Your task to perform on an android device: What's the news in Argentina? Image 0: 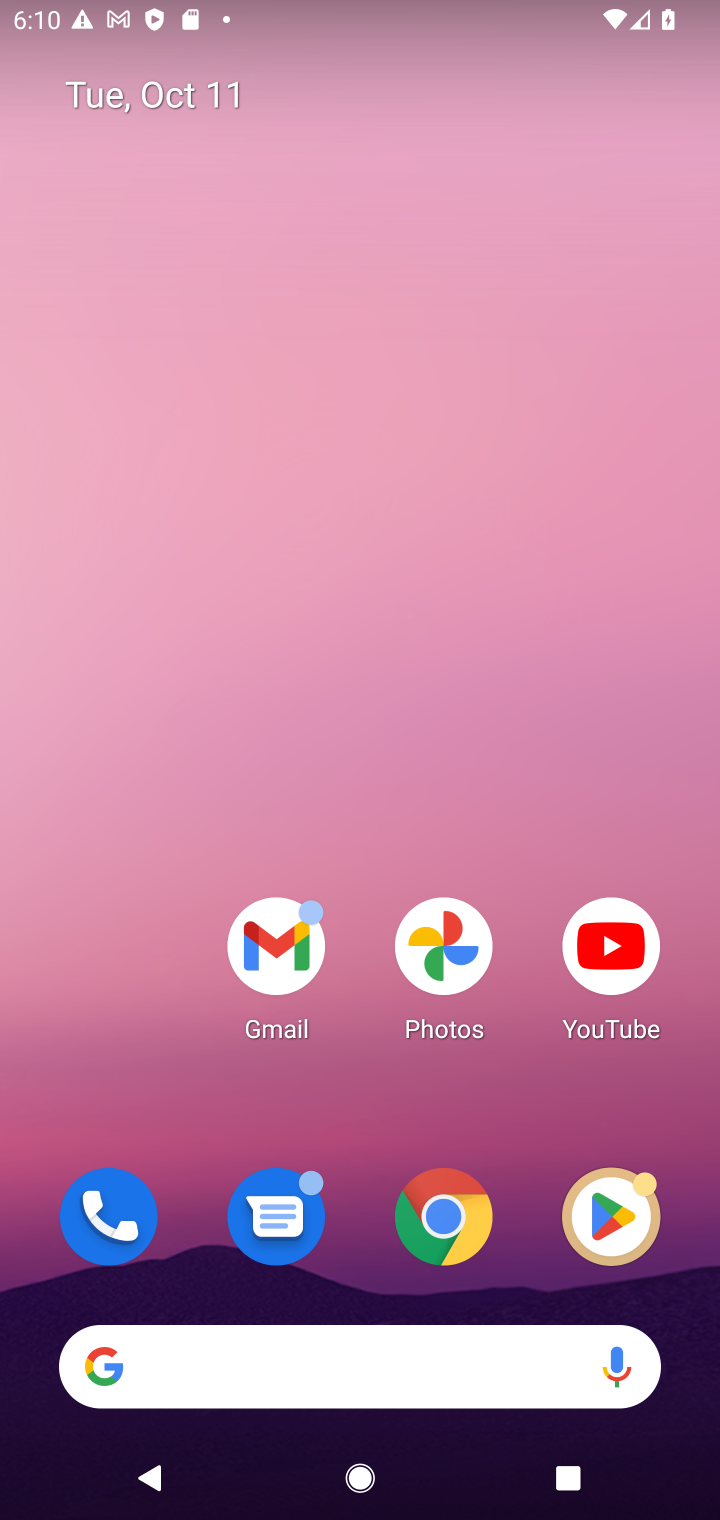
Step 0: click (445, 1218)
Your task to perform on an android device: What's the news in Argentina? Image 1: 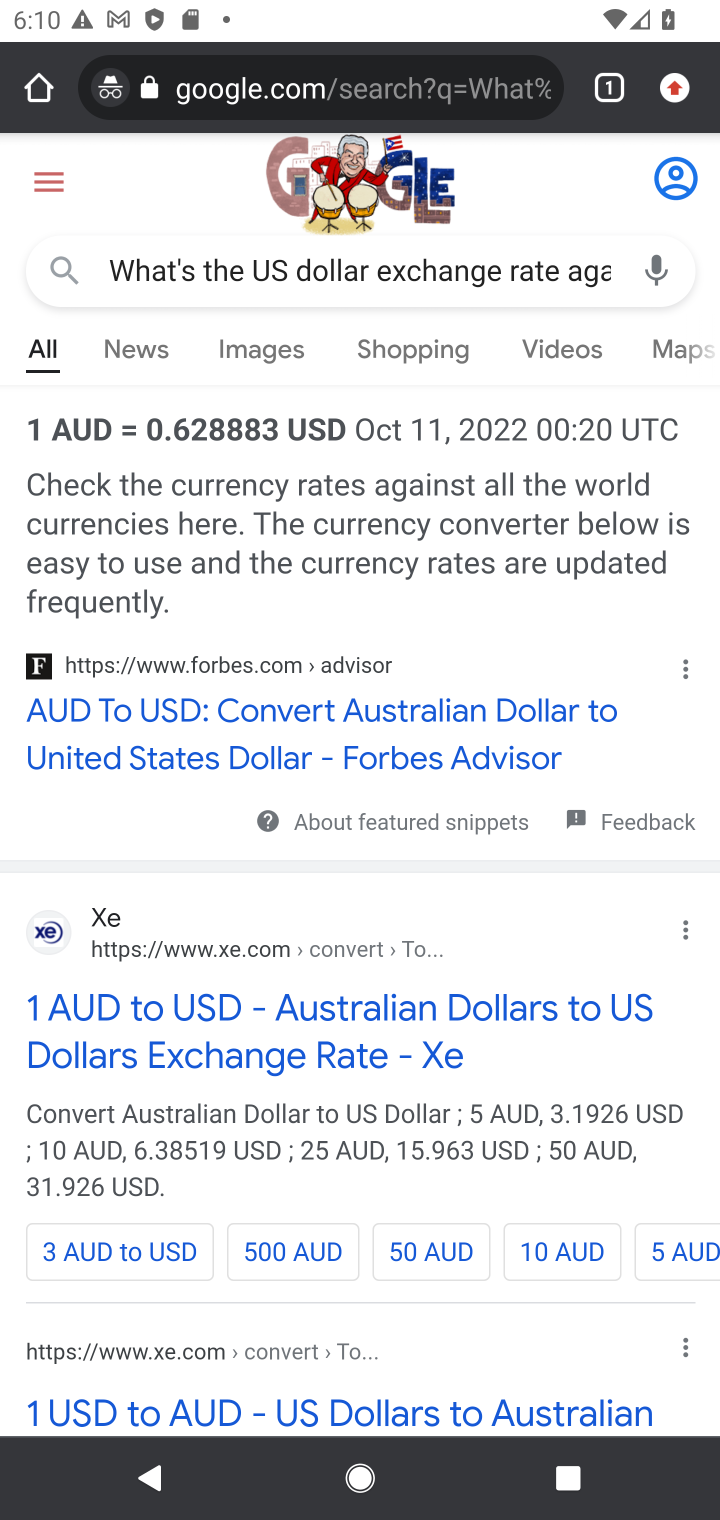
Step 1: click (484, 73)
Your task to perform on an android device: What's the news in Argentina? Image 2: 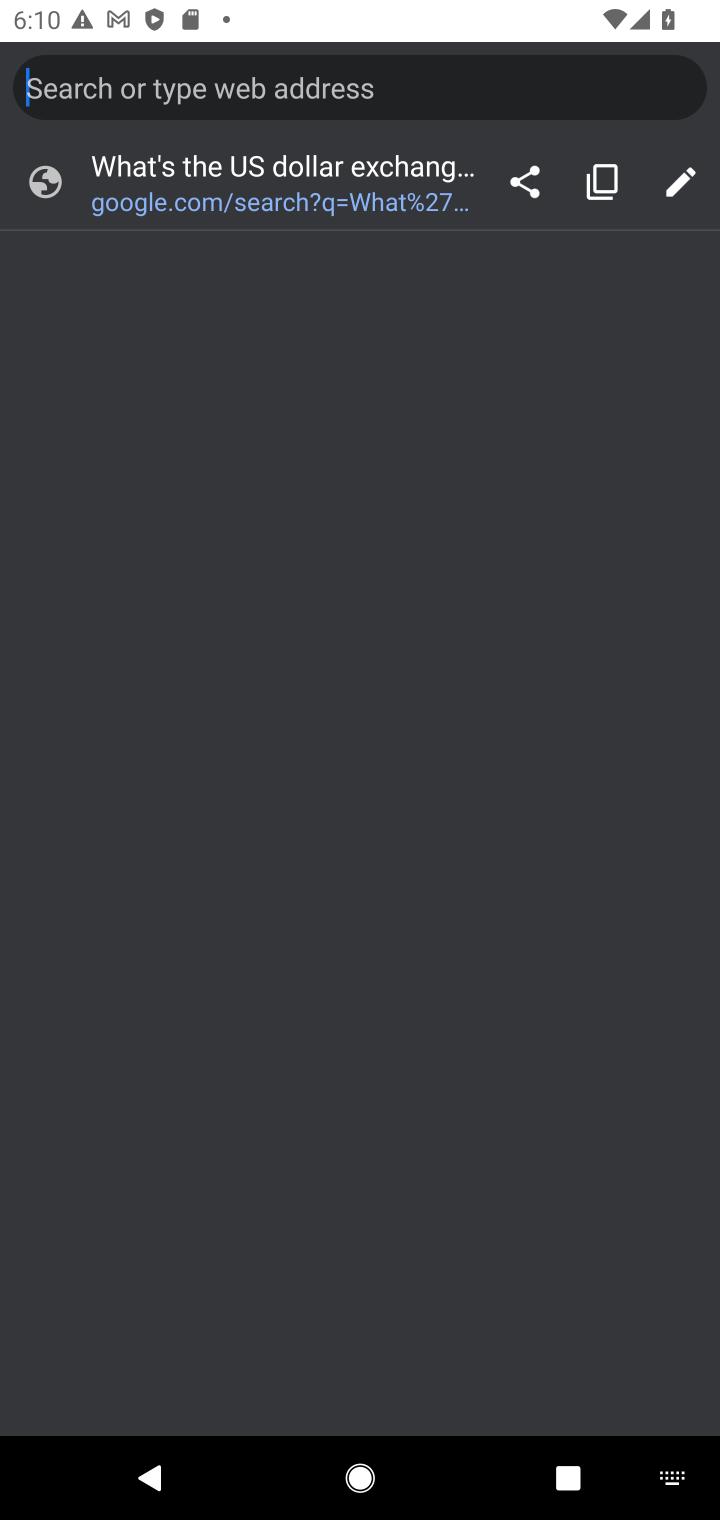
Step 2: type "What's the news in Argentina?"
Your task to perform on an android device: What's the news in Argentina? Image 3: 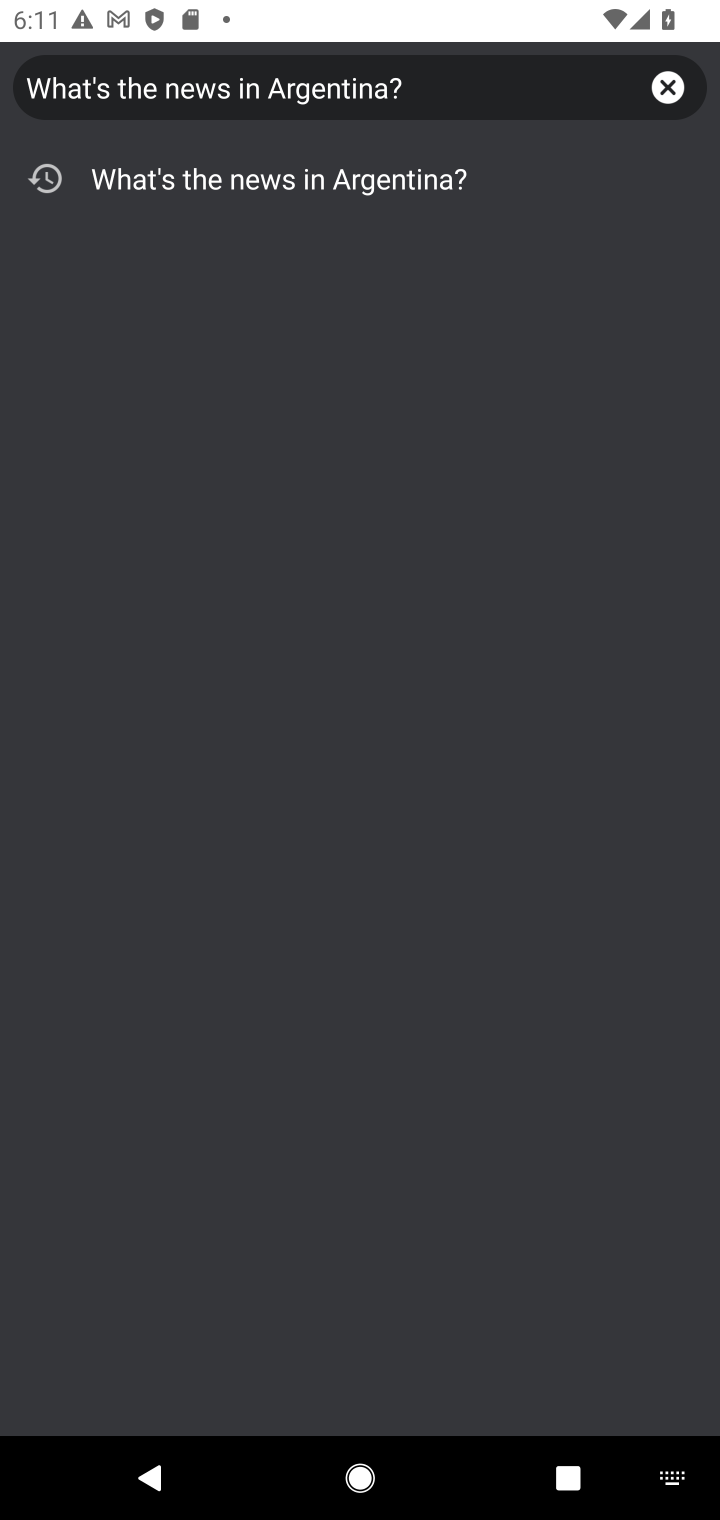
Step 3: click (232, 187)
Your task to perform on an android device: What's the news in Argentina? Image 4: 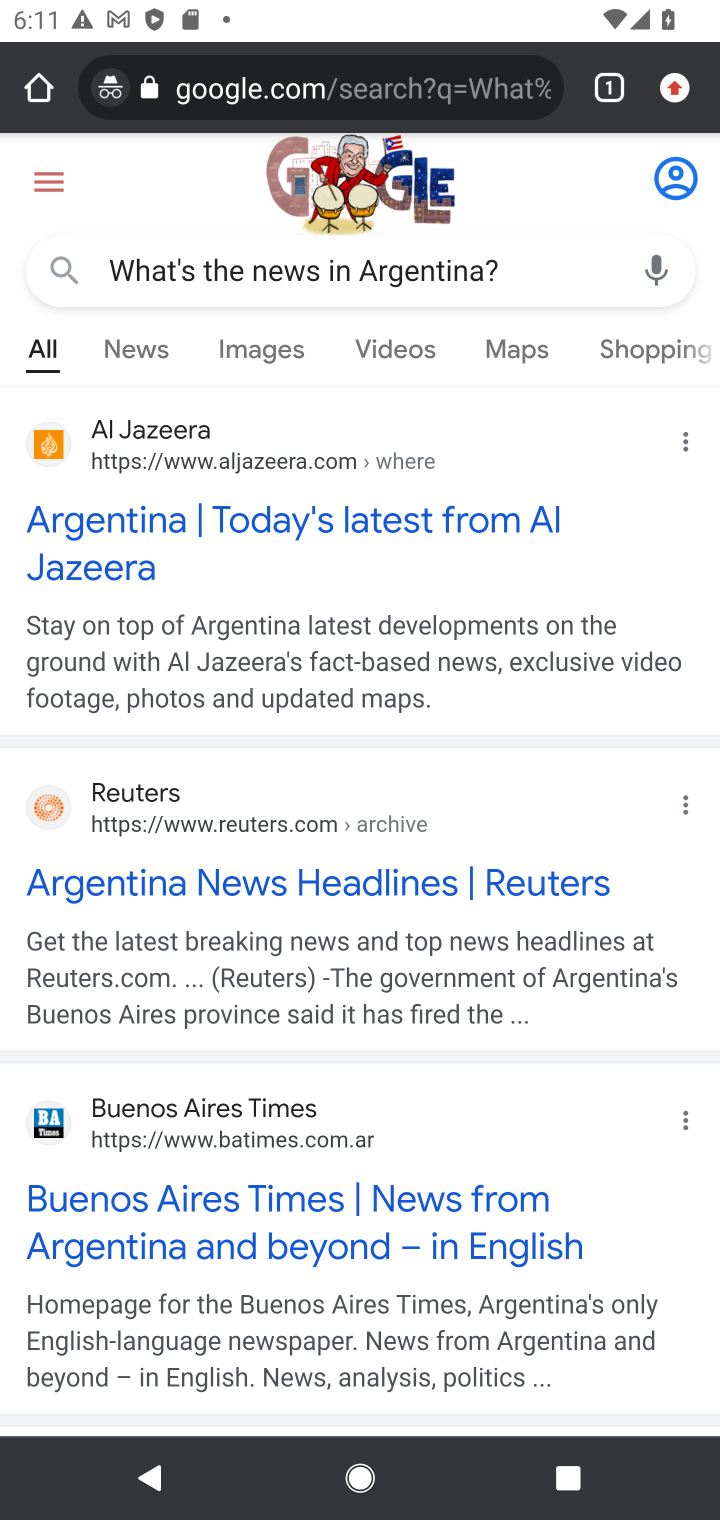
Step 4: click (160, 456)
Your task to perform on an android device: What's the news in Argentina? Image 5: 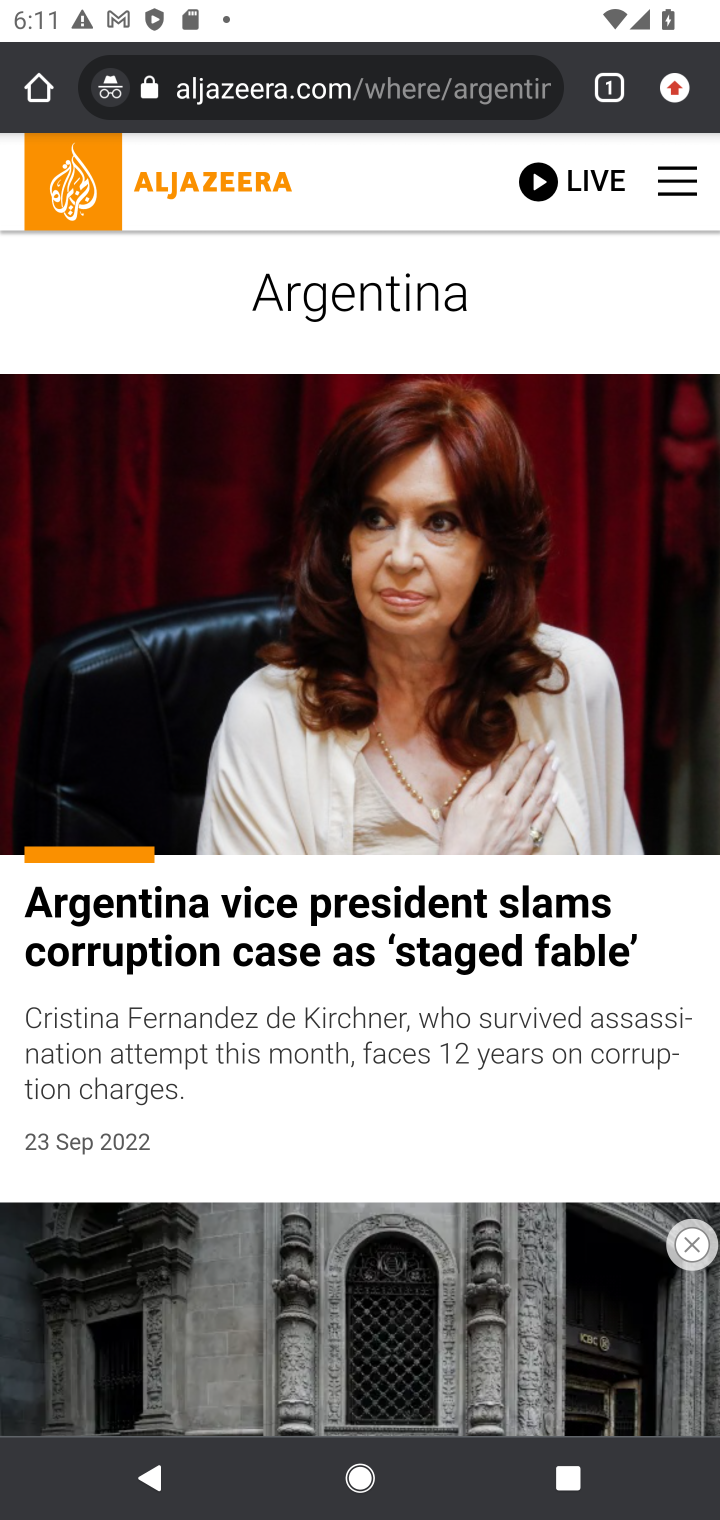
Step 5: drag from (265, 1184) to (452, 771)
Your task to perform on an android device: What's the news in Argentina? Image 6: 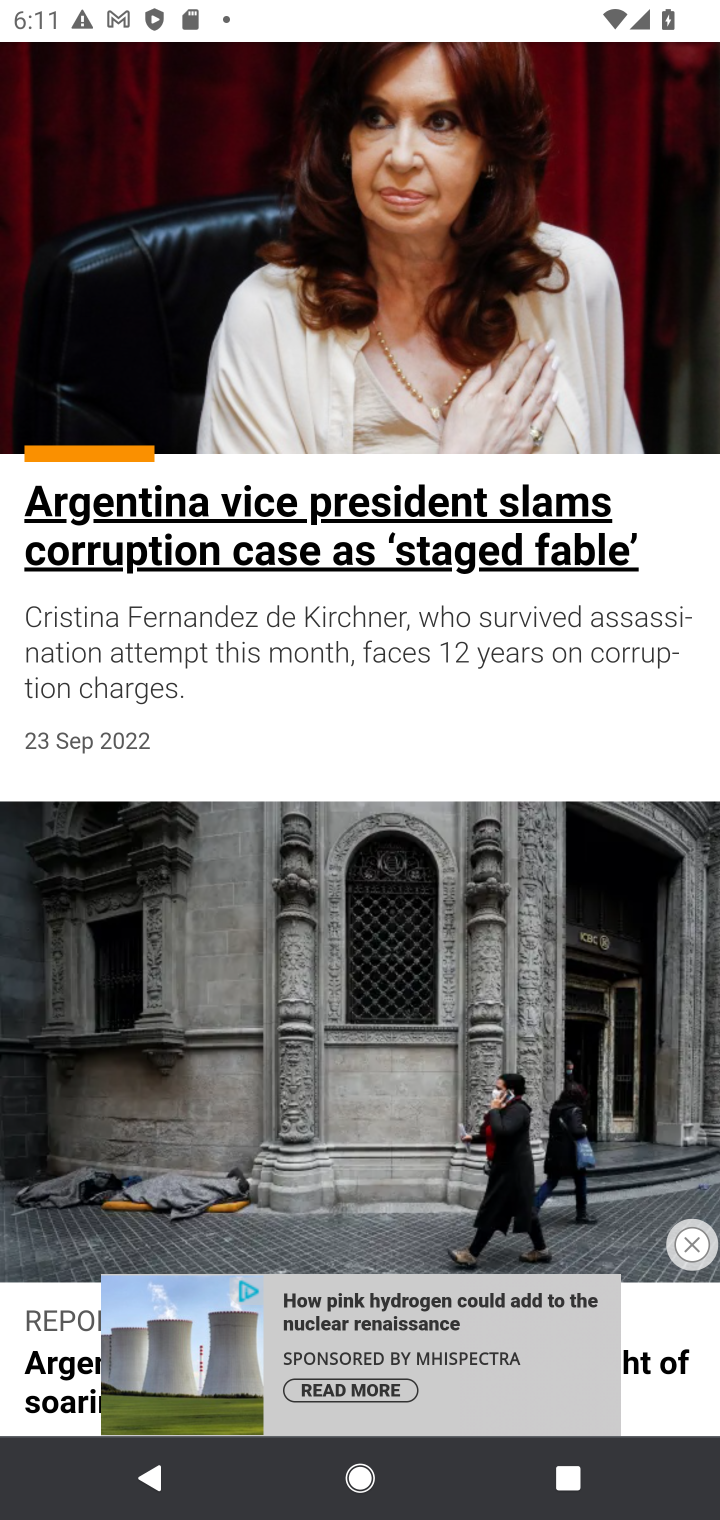
Step 6: drag from (423, 682) to (496, 425)
Your task to perform on an android device: What's the news in Argentina? Image 7: 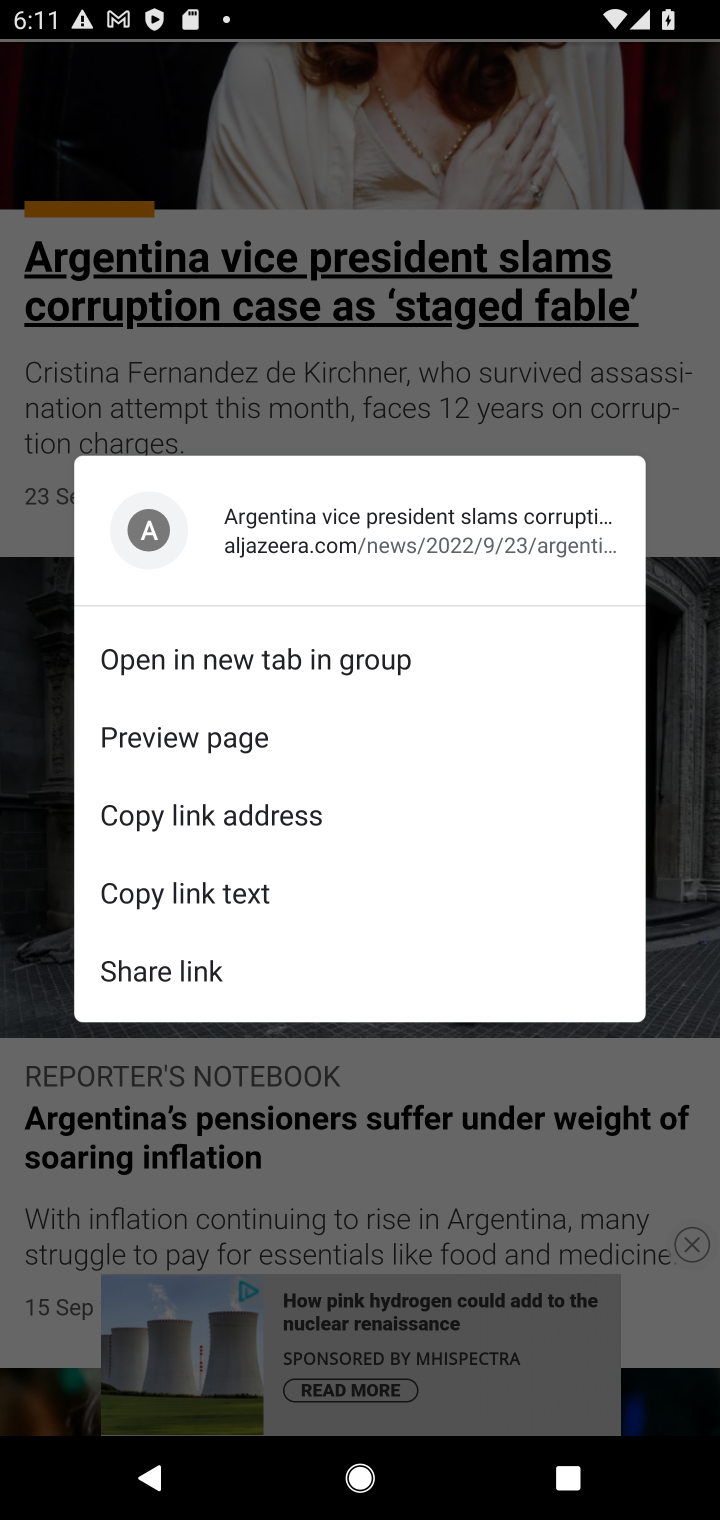
Step 7: click (684, 729)
Your task to perform on an android device: What's the news in Argentina? Image 8: 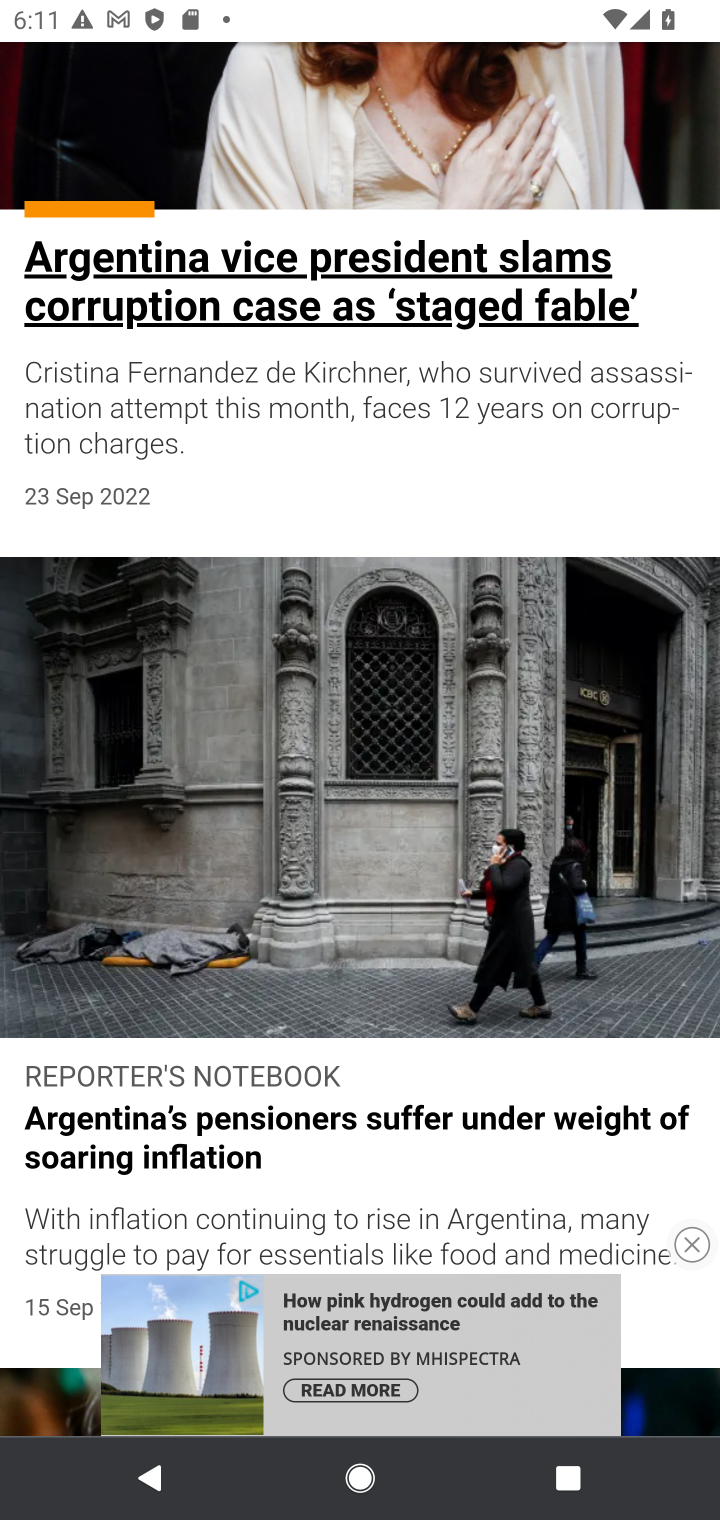
Step 8: task complete